Your task to perform on an android device: Show the shopping cart on bestbuy.com. Add "asus zenbook" to the cart on bestbuy.com, then select checkout. Image 0: 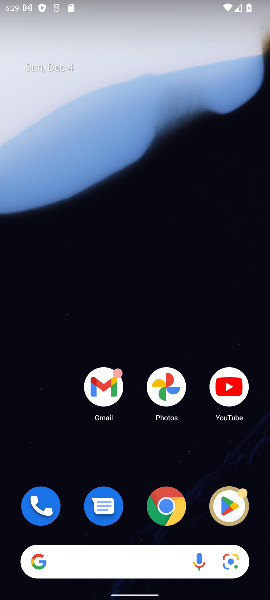
Step 0: click (172, 520)
Your task to perform on an android device: Show the shopping cart on bestbuy.com. Add "asus zenbook" to the cart on bestbuy.com, then select checkout. Image 1: 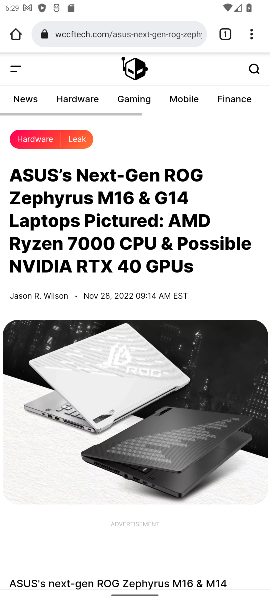
Step 1: click (134, 29)
Your task to perform on an android device: Show the shopping cart on bestbuy.com. Add "asus zenbook" to the cart on bestbuy.com, then select checkout. Image 2: 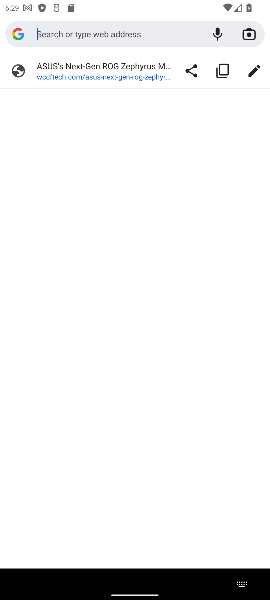
Step 2: type "bestbuy"
Your task to perform on an android device: Show the shopping cart on bestbuy.com. Add "asus zenbook" to the cart on bestbuy.com, then select checkout. Image 3: 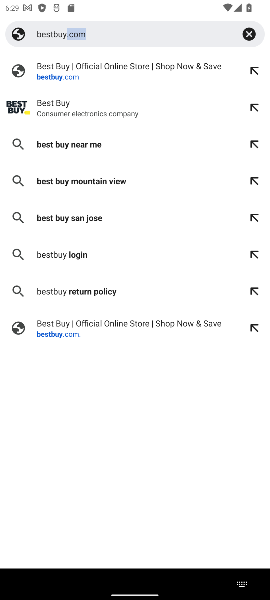
Step 3: click (120, 105)
Your task to perform on an android device: Show the shopping cart on bestbuy.com. Add "asus zenbook" to the cart on bestbuy.com, then select checkout. Image 4: 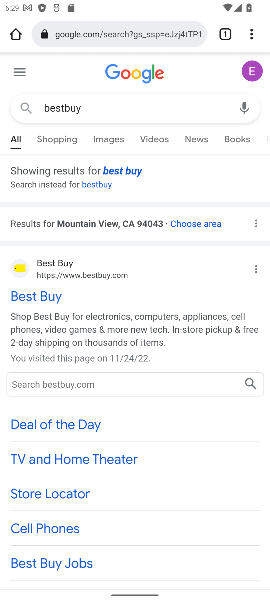
Step 4: click (49, 302)
Your task to perform on an android device: Show the shopping cart on bestbuy.com. Add "asus zenbook" to the cart on bestbuy.com, then select checkout. Image 5: 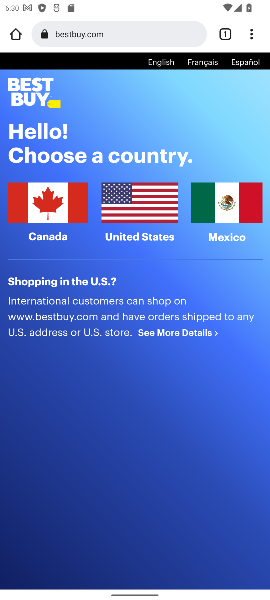
Step 5: click (110, 173)
Your task to perform on an android device: Show the shopping cart on bestbuy.com. Add "asus zenbook" to the cart on bestbuy.com, then select checkout. Image 6: 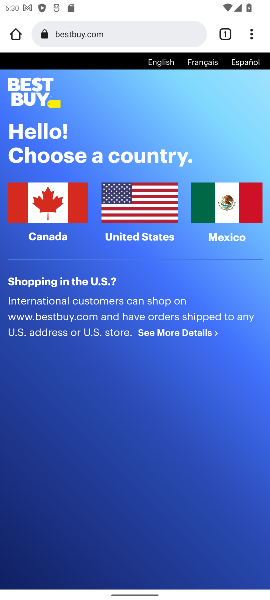
Step 6: click (135, 184)
Your task to perform on an android device: Show the shopping cart on bestbuy.com. Add "asus zenbook" to the cart on bestbuy.com, then select checkout. Image 7: 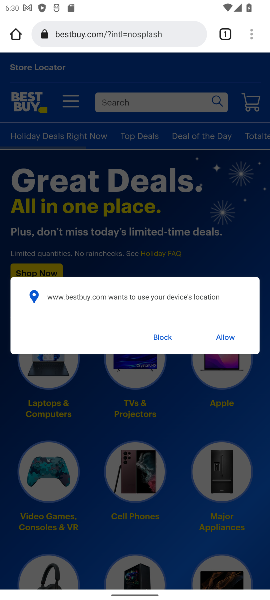
Step 7: click (220, 339)
Your task to perform on an android device: Show the shopping cart on bestbuy.com. Add "asus zenbook" to the cart on bestbuy.com, then select checkout. Image 8: 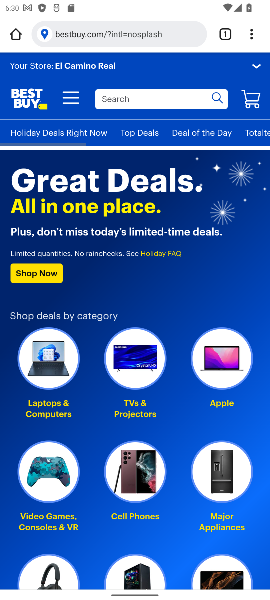
Step 8: click (195, 101)
Your task to perform on an android device: Show the shopping cart on bestbuy.com. Add "asus zenbook" to the cart on bestbuy.com, then select checkout. Image 9: 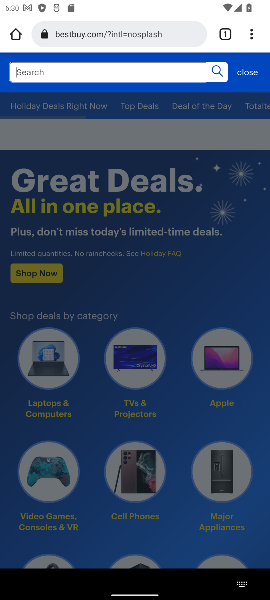
Step 9: type "asus zenbook"
Your task to perform on an android device: Show the shopping cart on bestbuy.com. Add "asus zenbook" to the cart on bestbuy.com, then select checkout. Image 10: 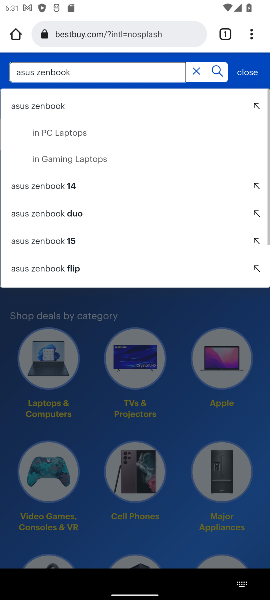
Step 10: click (224, 72)
Your task to perform on an android device: Show the shopping cart on bestbuy.com. Add "asus zenbook" to the cart on bestbuy.com, then select checkout. Image 11: 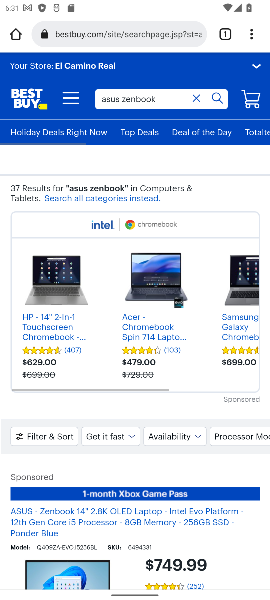
Step 11: drag from (119, 565) to (134, 246)
Your task to perform on an android device: Show the shopping cart on bestbuy.com. Add "asus zenbook" to the cart on bestbuy.com, then select checkout. Image 12: 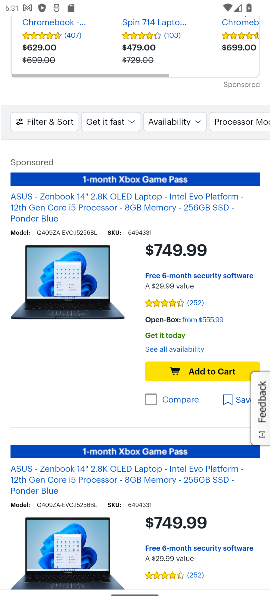
Step 12: click (220, 368)
Your task to perform on an android device: Show the shopping cart on bestbuy.com. Add "asus zenbook" to the cart on bestbuy.com, then select checkout. Image 13: 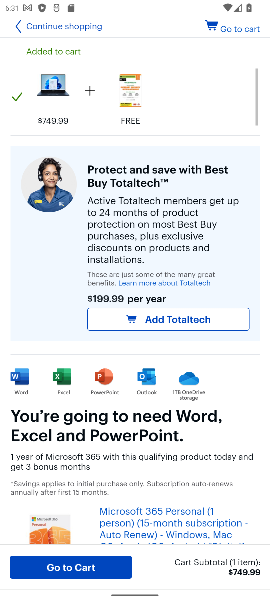
Step 13: click (70, 569)
Your task to perform on an android device: Show the shopping cart on bestbuy.com. Add "asus zenbook" to the cart on bestbuy.com, then select checkout. Image 14: 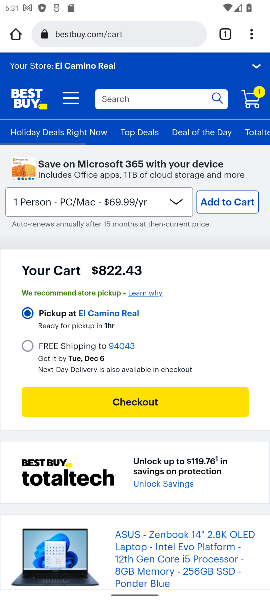
Step 14: click (99, 395)
Your task to perform on an android device: Show the shopping cart on bestbuy.com. Add "asus zenbook" to the cart on bestbuy.com, then select checkout. Image 15: 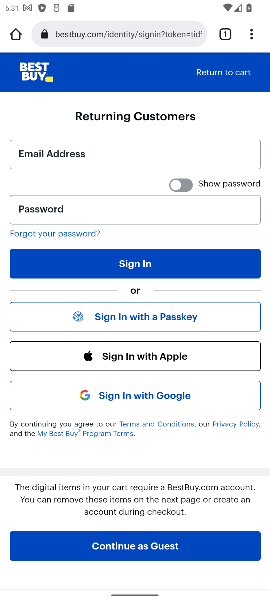
Step 15: task complete